Your task to perform on an android device: Open Wikipedia Image 0: 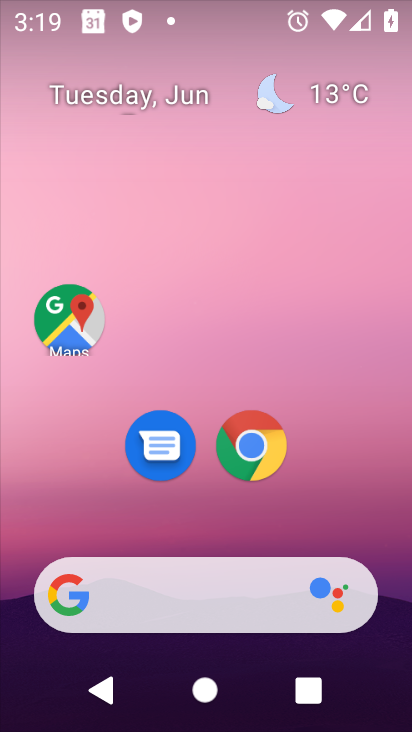
Step 0: click (253, 445)
Your task to perform on an android device: Open Wikipedia Image 1: 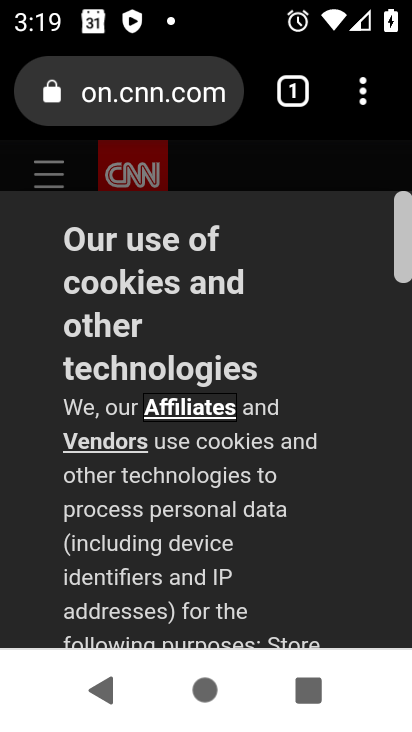
Step 1: click (151, 71)
Your task to perform on an android device: Open Wikipedia Image 2: 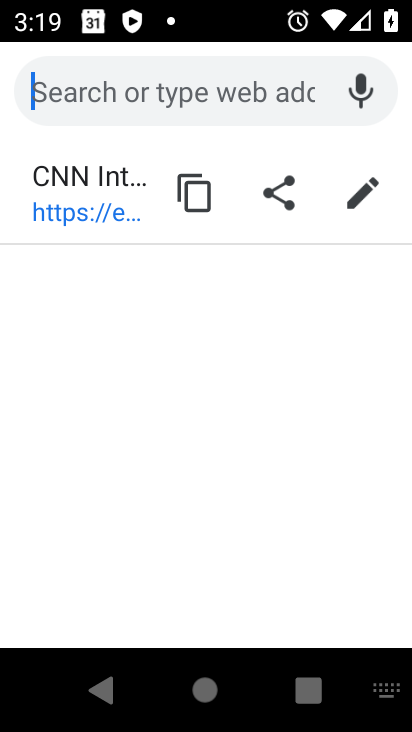
Step 2: type "wikipedia"
Your task to perform on an android device: Open Wikipedia Image 3: 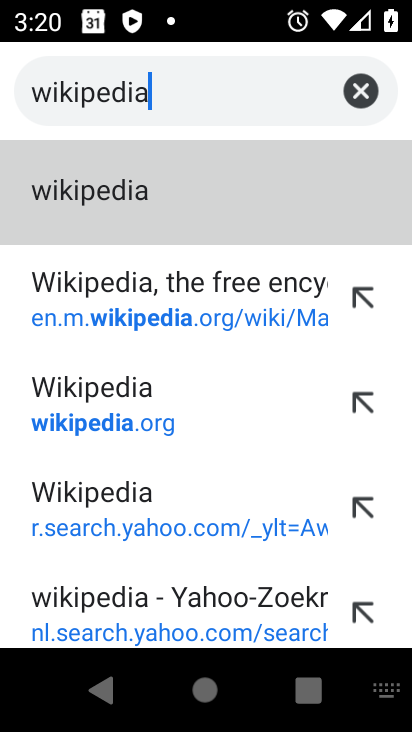
Step 3: click (83, 191)
Your task to perform on an android device: Open Wikipedia Image 4: 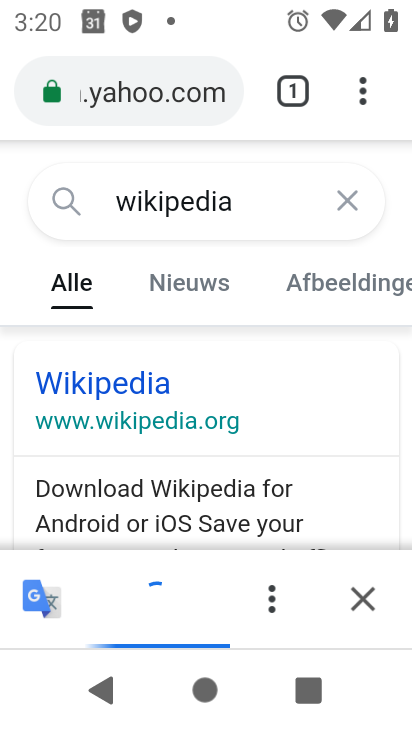
Step 4: click (111, 381)
Your task to perform on an android device: Open Wikipedia Image 5: 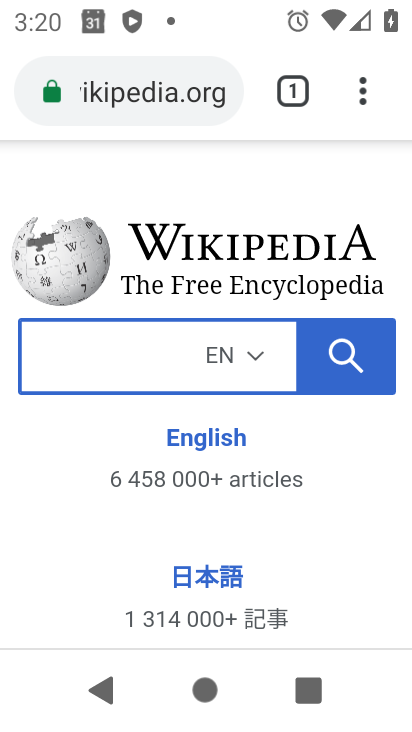
Step 5: task complete